Your task to perform on an android device: Open calendar and show me the fourth week of next month Image 0: 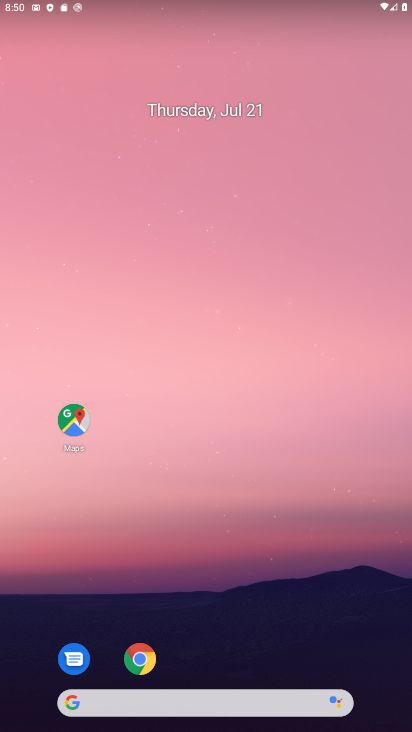
Step 0: drag from (240, 684) to (153, 91)
Your task to perform on an android device: Open calendar and show me the fourth week of next month Image 1: 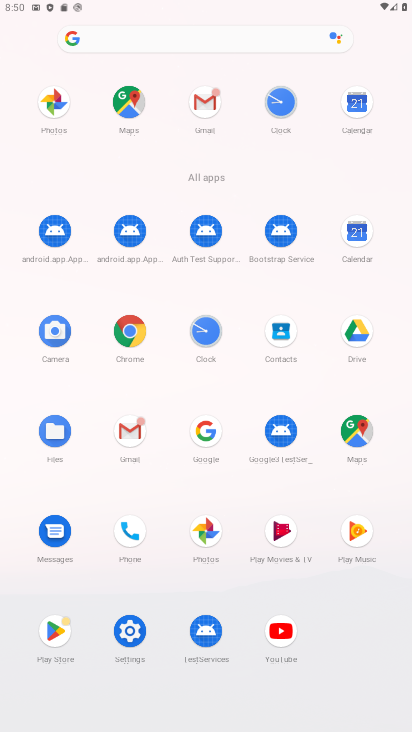
Step 1: click (349, 228)
Your task to perform on an android device: Open calendar and show me the fourth week of next month Image 2: 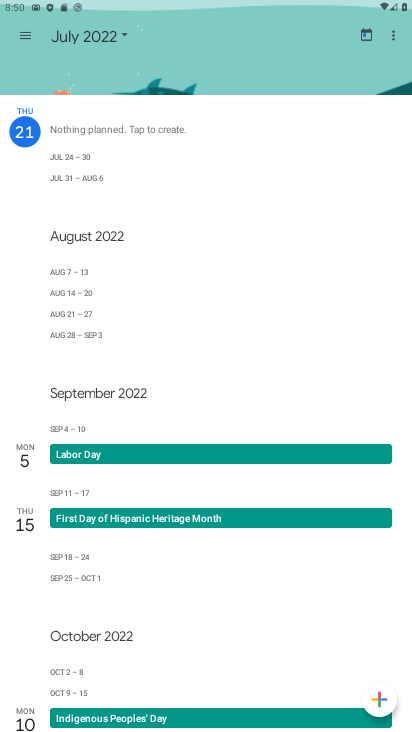
Step 2: click (27, 25)
Your task to perform on an android device: Open calendar and show me the fourth week of next month Image 3: 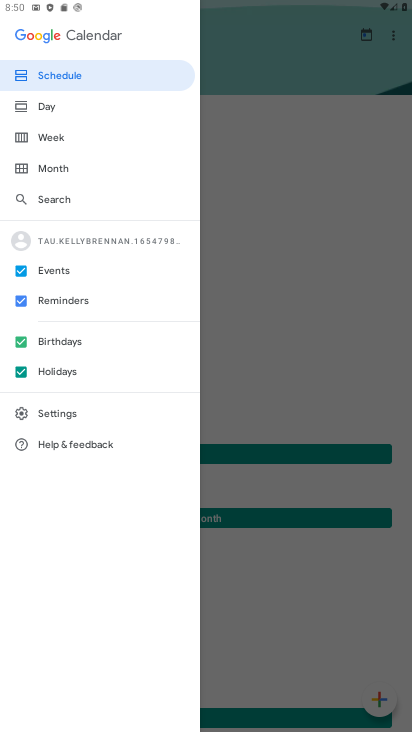
Step 3: click (54, 135)
Your task to perform on an android device: Open calendar and show me the fourth week of next month Image 4: 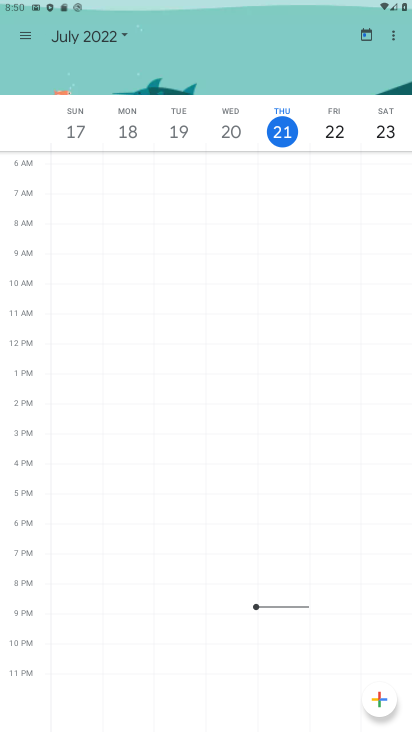
Step 4: task complete